Your task to perform on an android device: Find coffee shops on Maps Image 0: 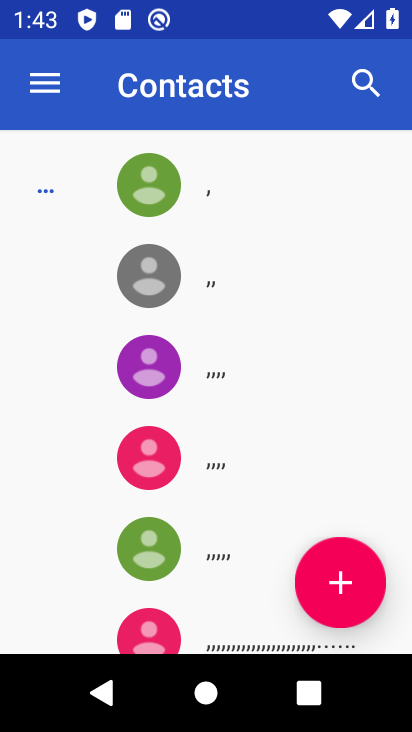
Step 0: press home button
Your task to perform on an android device: Find coffee shops on Maps Image 1: 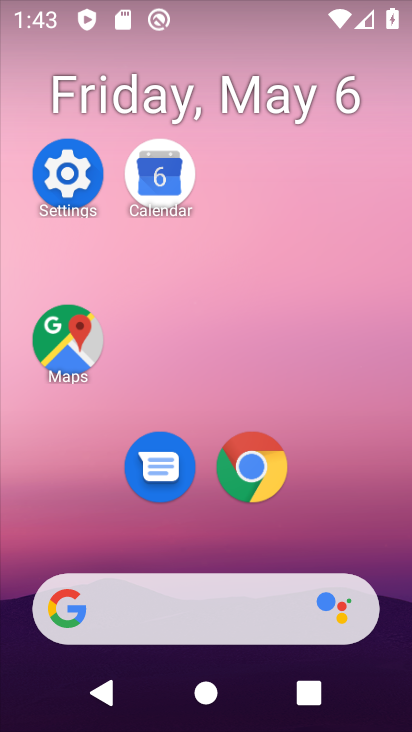
Step 1: click (50, 323)
Your task to perform on an android device: Find coffee shops on Maps Image 2: 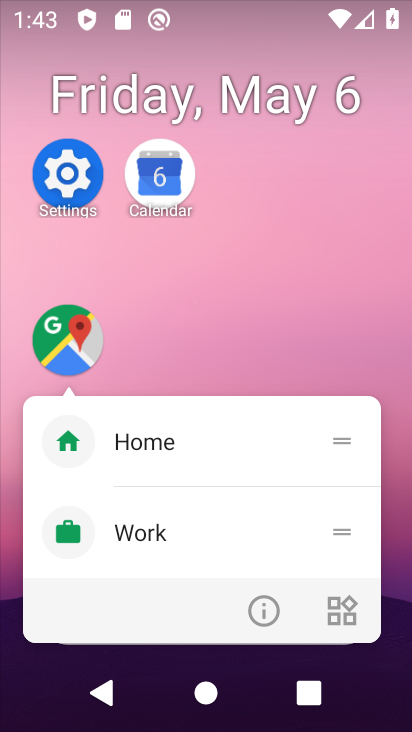
Step 2: click (50, 323)
Your task to perform on an android device: Find coffee shops on Maps Image 3: 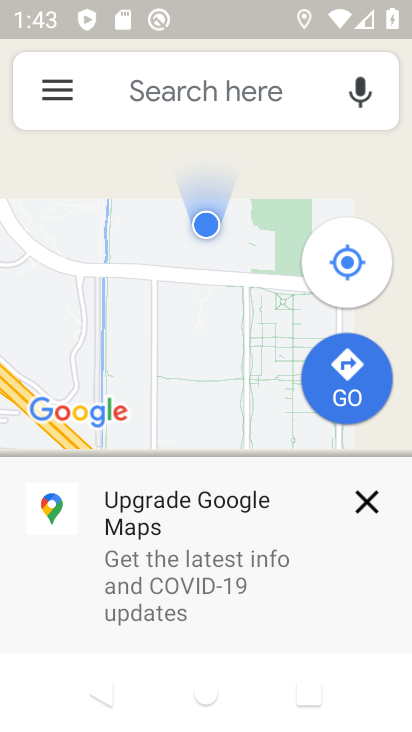
Step 3: click (236, 89)
Your task to perform on an android device: Find coffee shops on Maps Image 4: 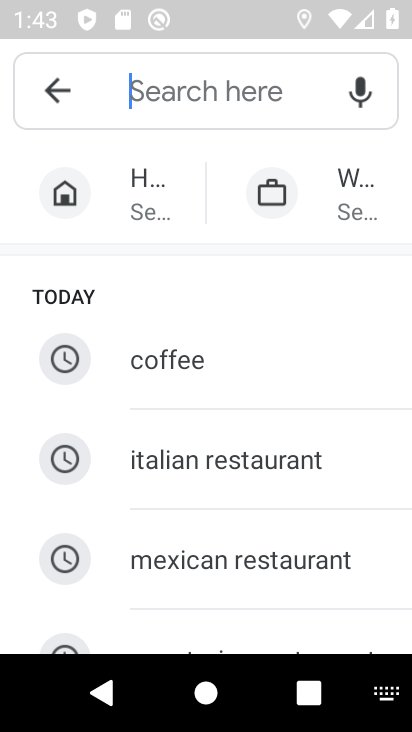
Step 4: type "coffee shops"
Your task to perform on an android device: Find coffee shops on Maps Image 5: 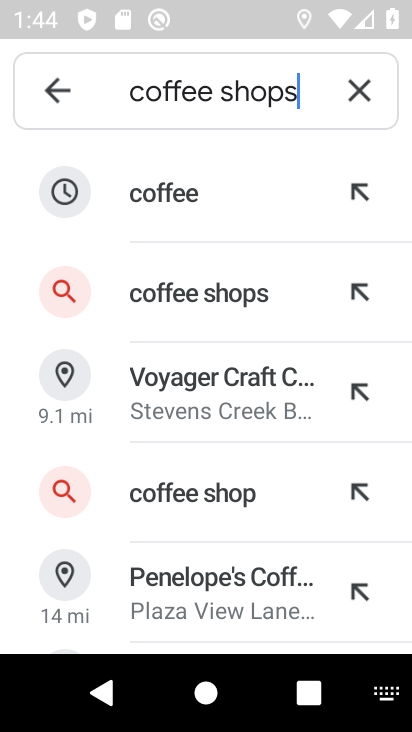
Step 5: task complete